Your task to perform on an android device: Search for sushi restaurants on Maps Image 0: 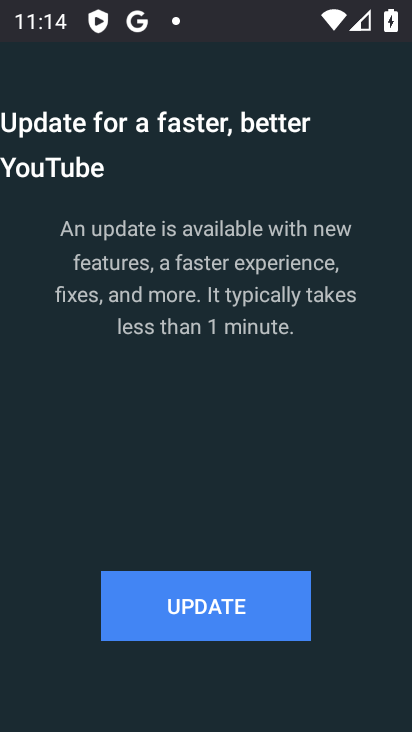
Step 0: press back button
Your task to perform on an android device: Search for sushi restaurants on Maps Image 1: 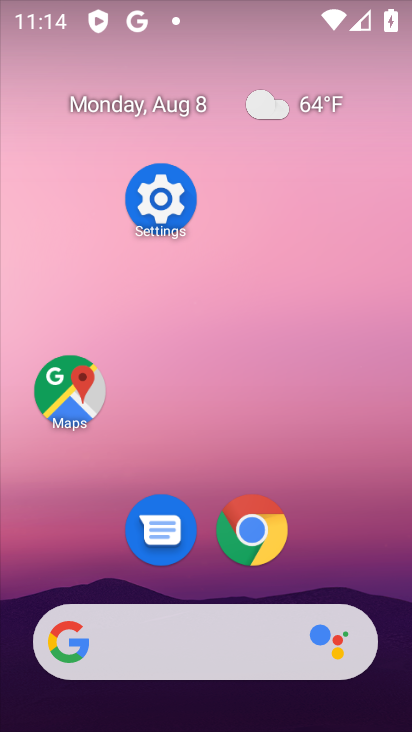
Step 1: drag from (236, 650) to (204, 327)
Your task to perform on an android device: Search for sushi restaurants on Maps Image 2: 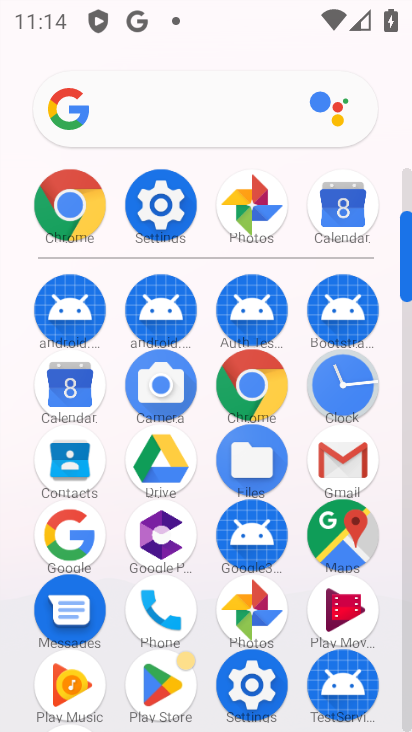
Step 2: drag from (229, 695) to (247, 498)
Your task to perform on an android device: Search for sushi restaurants on Maps Image 3: 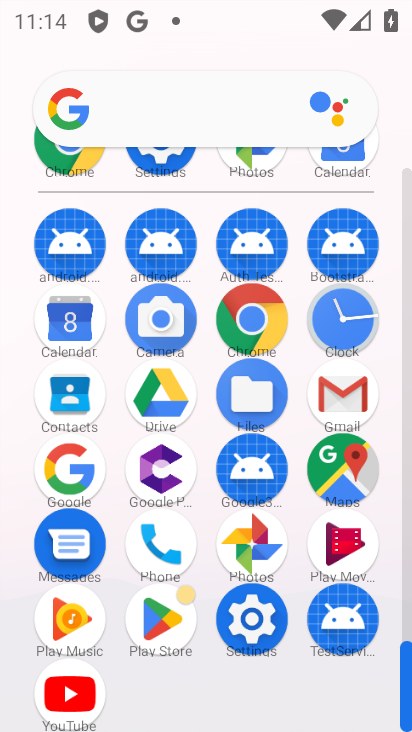
Step 3: click (346, 461)
Your task to perform on an android device: Search for sushi restaurants on Maps Image 4: 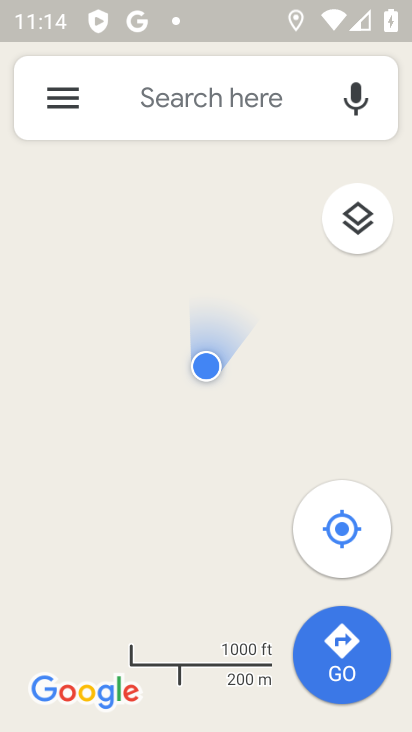
Step 4: click (130, 87)
Your task to perform on an android device: Search for sushi restaurants on Maps Image 5: 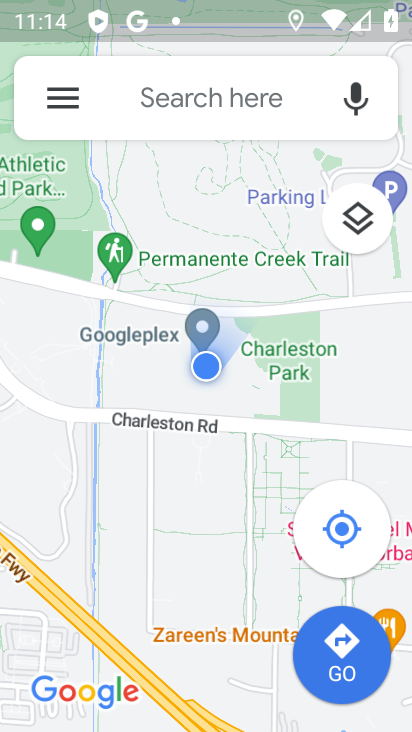
Step 5: click (138, 92)
Your task to perform on an android device: Search for sushi restaurants on Maps Image 6: 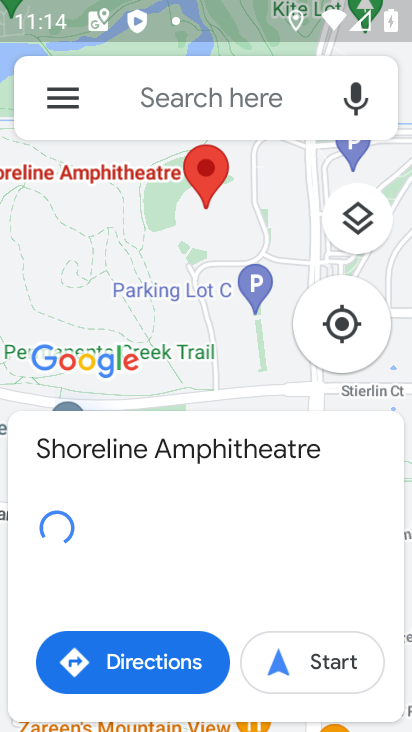
Step 6: click (154, 97)
Your task to perform on an android device: Search for sushi restaurants on Maps Image 7: 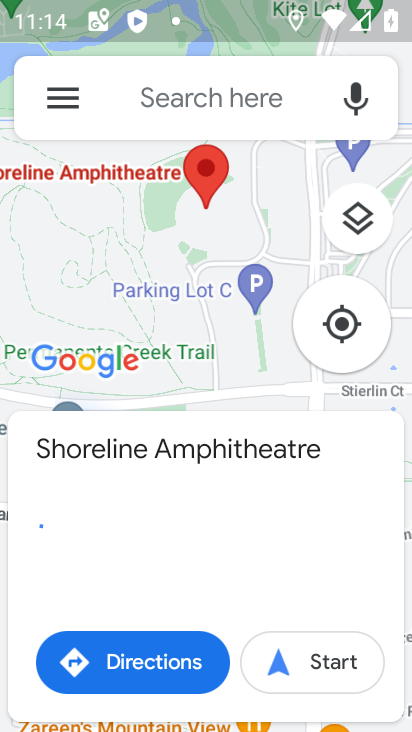
Step 7: click (154, 97)
Your task to perform on an android device: Search for sushi restaurants on Maps Image 8: 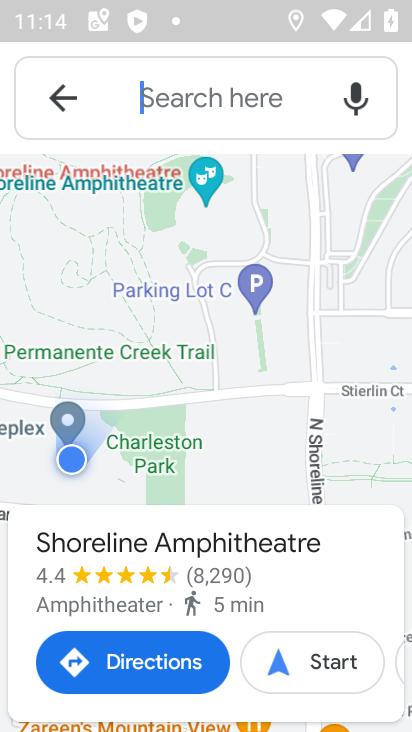
Step 8: click (138, 90)
Your task to perform on an android device: Search for sushi restaurants on Maps Image 9: 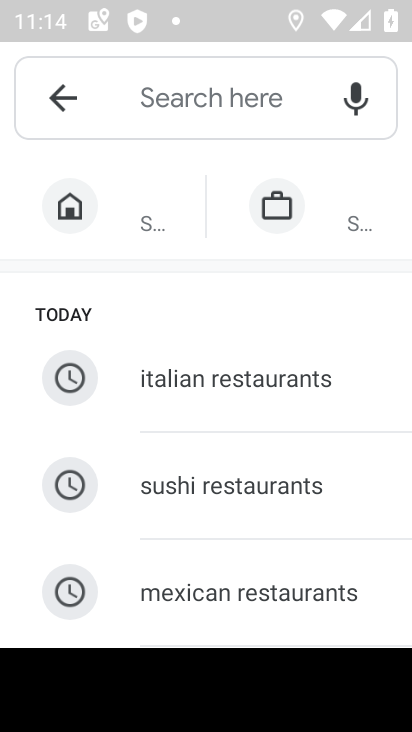
Step 9: click (199, 469)
Your task to perform on an android device: Search for sushi restaurants on Maps Image 10: 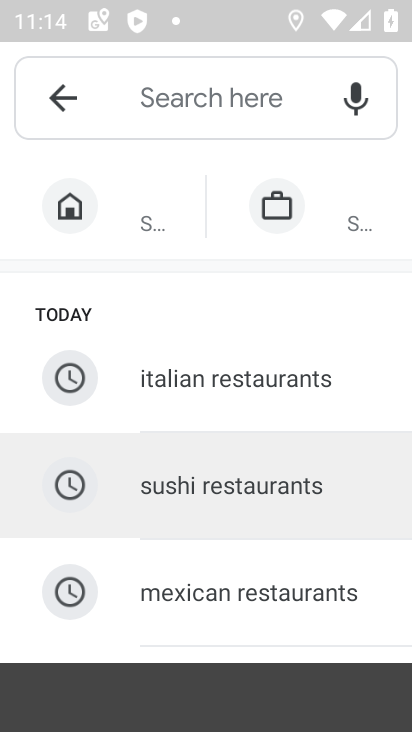
Step 10: click (199, 469)
Your task to perform on an android device: Search for sushi restaurants on Maps Image 11: 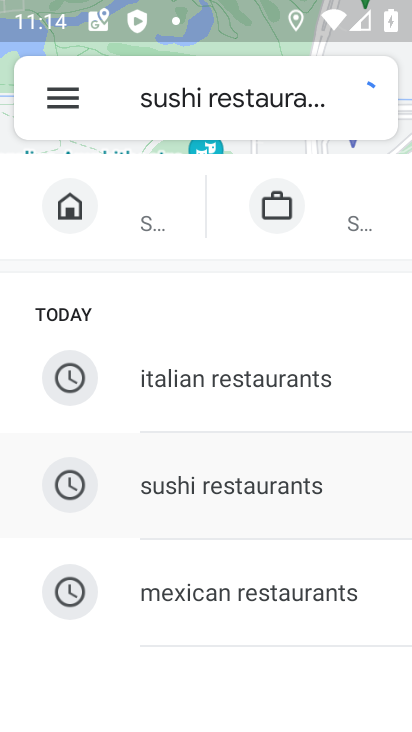
Step 11: click (201, 468)
Your task to perform on an android device: Search for sushi restaurants on Maps Image 12: 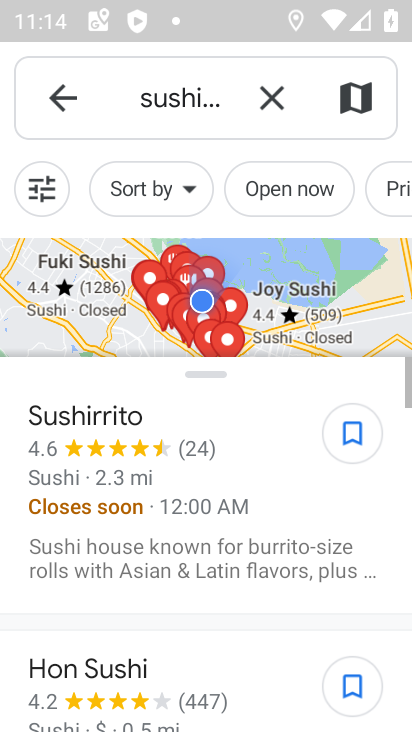
Step 12: task complete